Your task to perform on an android device: Go to eBay Image 0: 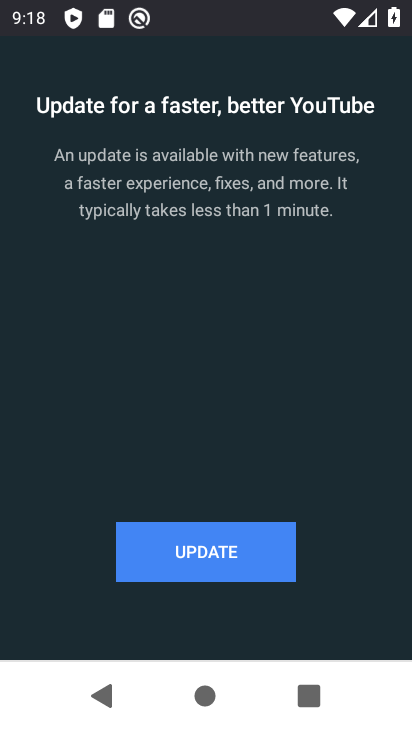
Step 0: press home button
Your task to perform on an android device: Go to eBay Image 1: 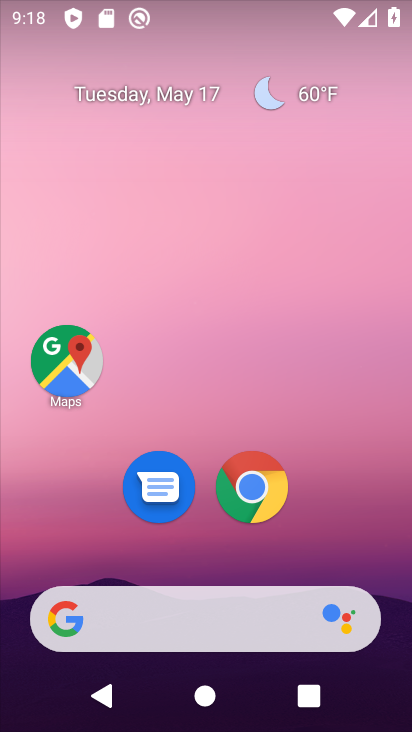
Step 1: drag from (209, 565) to (239, 62)
Your task to perform on an android device: Go to eBay Image 2: 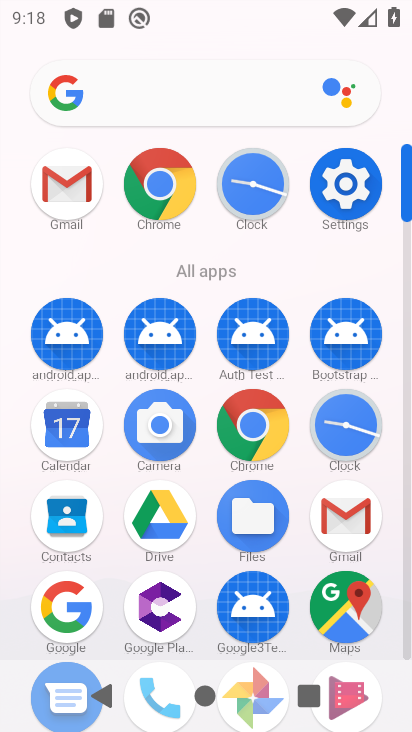
Step 2: click (260, 432)
Your task to perform on an android device: Go to eBay Image 3: 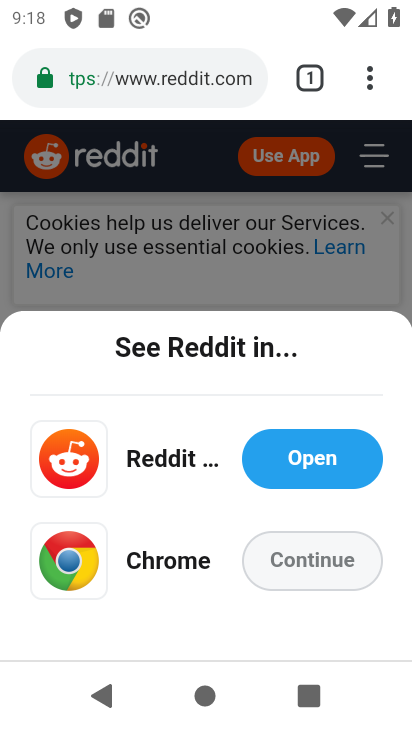
Step 3: click (147, 94)
Your task to perform on an android device: Go to eBay Image 4: 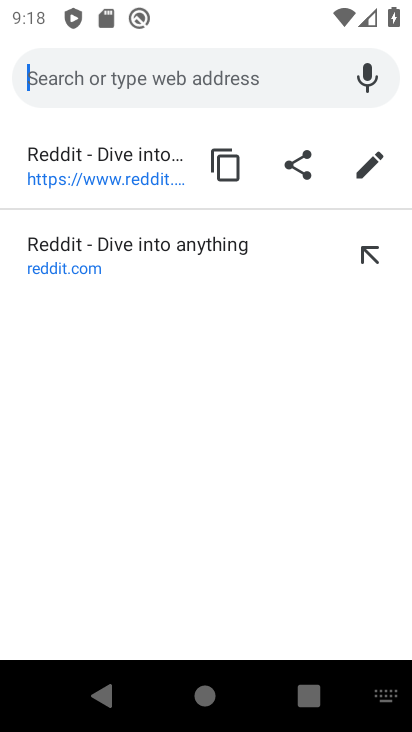
Step 4: type "eBay"
Your task to perform on an android device: Go to eBay Image 5: 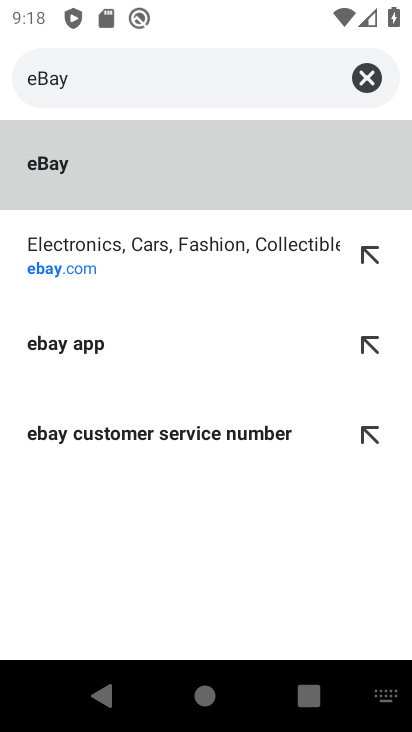
Step 5: click (85, 176)
Your task to perform on an android device: Go to eBay Image 6: 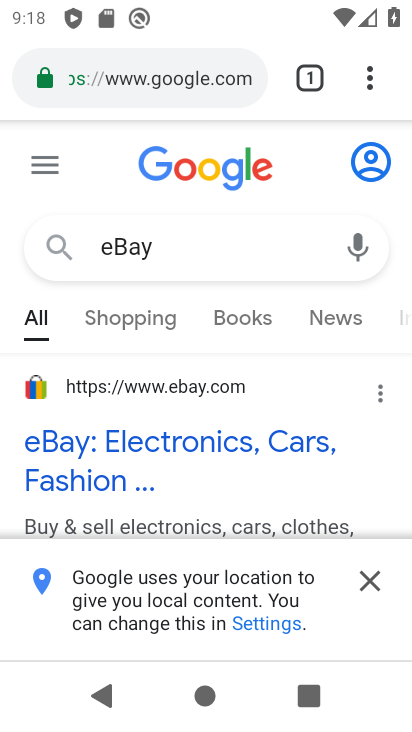
Step 6: task complete